Your task to perform on an android device: change alarm snooze length Image 0: 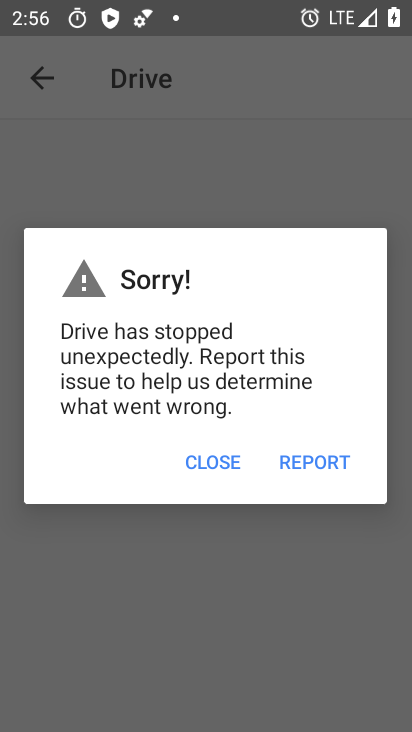
Step 0: press home button
Your task to perform on an android device: change alarm snooze length Image 1: 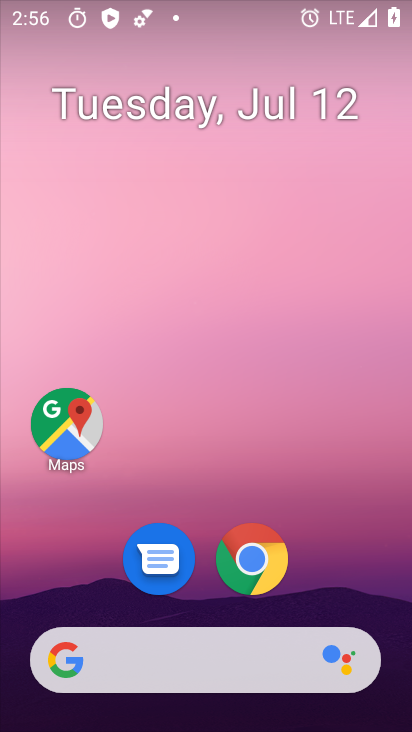
Step 1: drag from (385, 592) to (371, 221)
Your task to perform on an android device: change alarm snooze length Image 2: 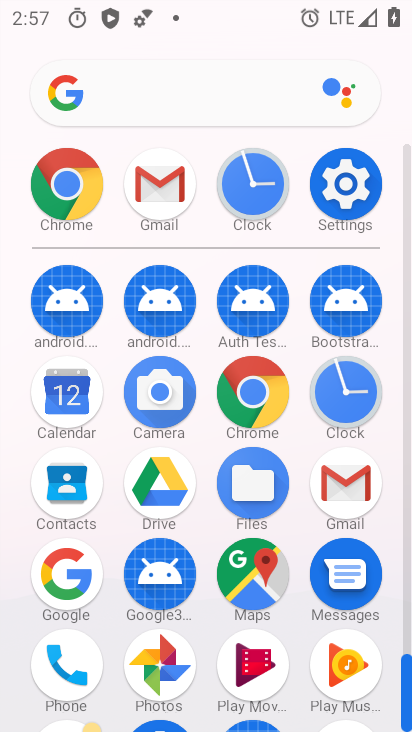
Step 2: click (339, 390)
Your task to perform on an android device: change alarm snooze length Image 3: 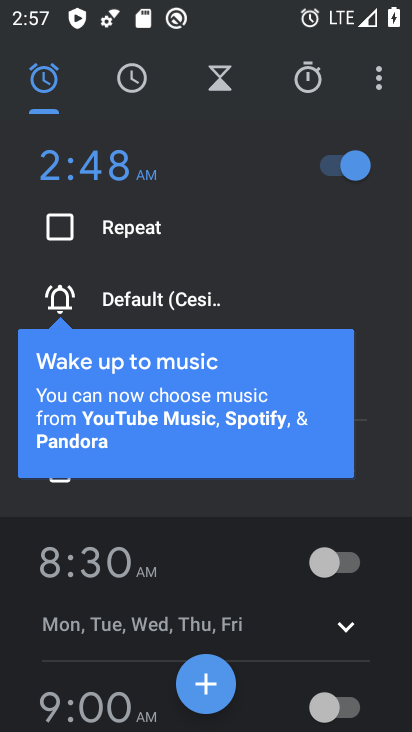
Step 3: click (382, 90)
Your task to perform on an android device: change alarm snooze length Image 4: 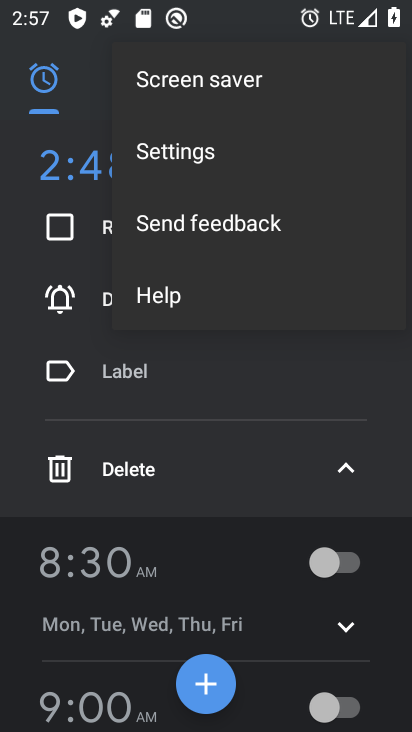
Step 4: click (230, 166)
Your task to perform on an android device: change alarm snooze length Image 5: 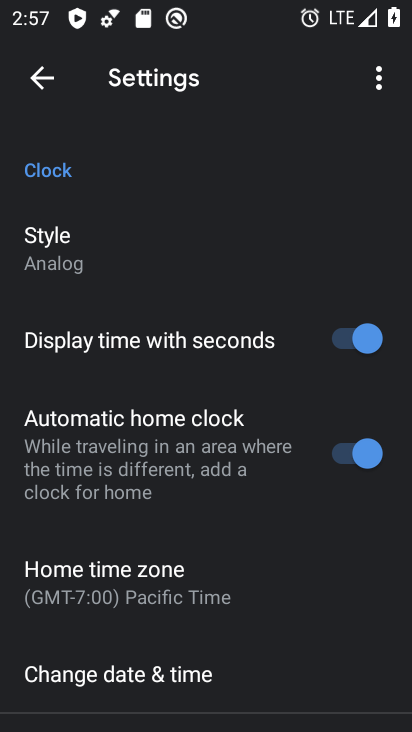
Step 5: drag from (263, 505) to (279, 413)
Your task to perform on an android device: change alarm snooze length Image 6: 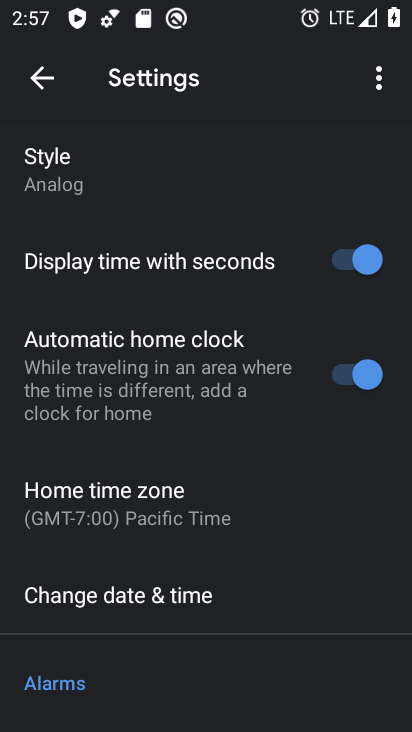
Step 6: drag from (265, 466) to (268, 402)
Your task to perform on an android device: change alarm snooze length Image 7: 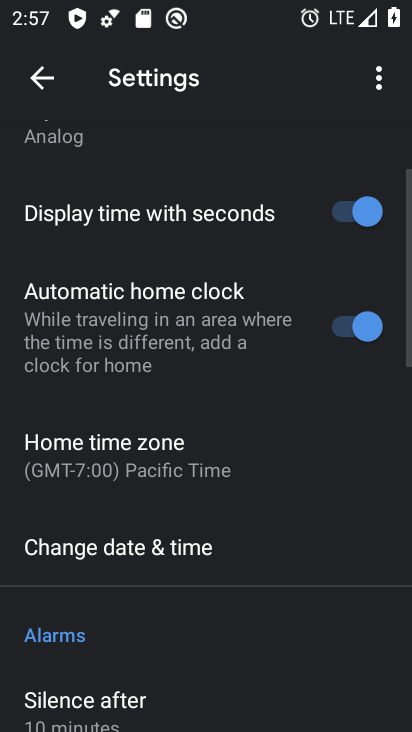
Step 7: drag from (255, 489) to (255, 410)
Your task to perform on an android device: change alarm snooze length Image 8: 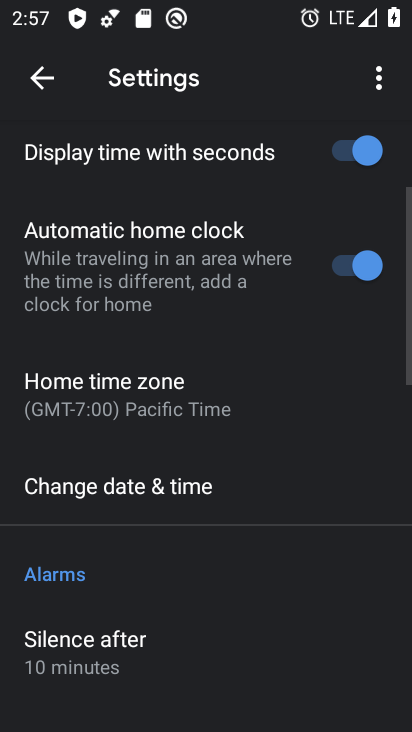
Step 8: drag from (285, 487) to (286, 410)
Your task to perform on an android device: change alarm snooze length Image 9: 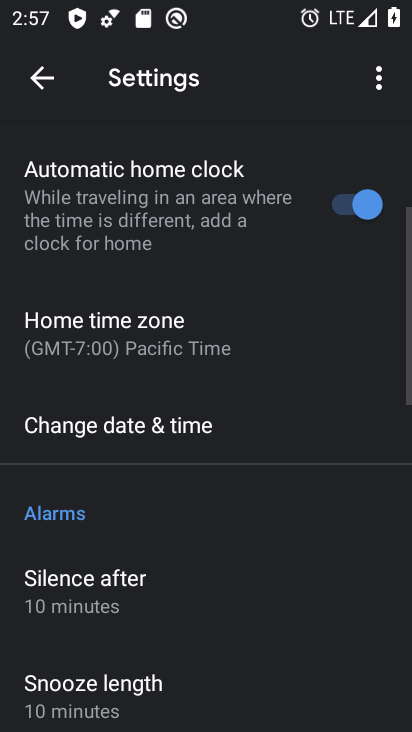
Step 9: drag from (292, 485) to (288, 398)
Your task to perform on an android device: change alarm snooze length Image 10: 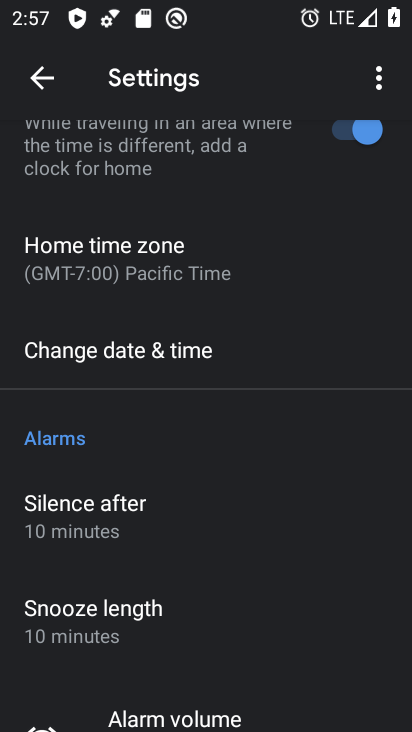
Step 10: drag from (301, 498) to (303, 404)
Your task to perform on an android device: change alarm snooze length Image 11: 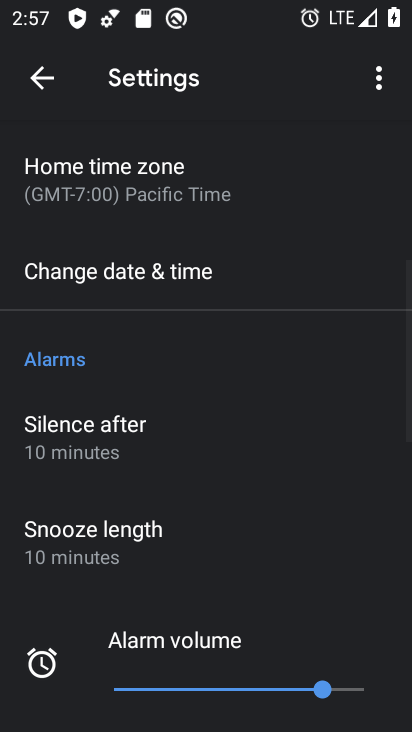
Step 11: drag from (303, 510) to (304, 408)
Your task to perform on an android device: change alarm snooze length Image 12: 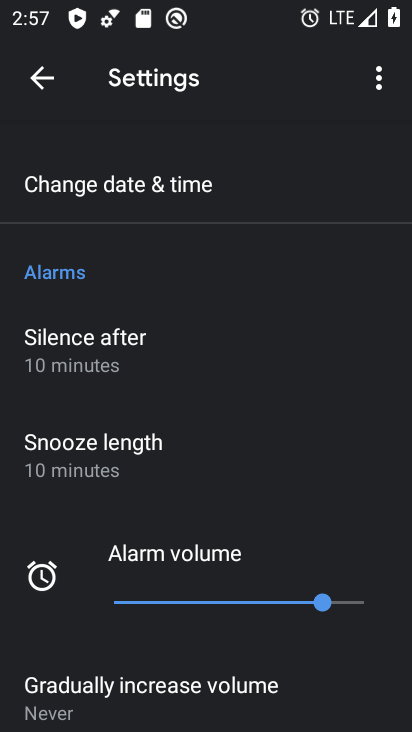
Step 12: drag from (307, 509) to (309, 424)
Your task to perform on an android device: change alarm snooze length Image 13: 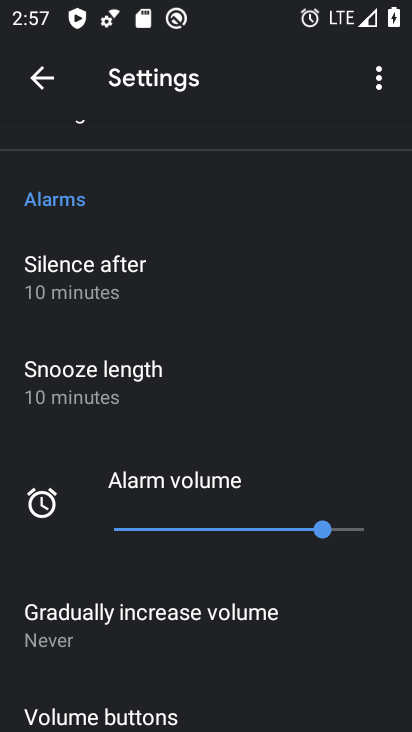
Step 13: click (227, 398)
Your task to perform on an android device: change alarm snooze length Image 14: 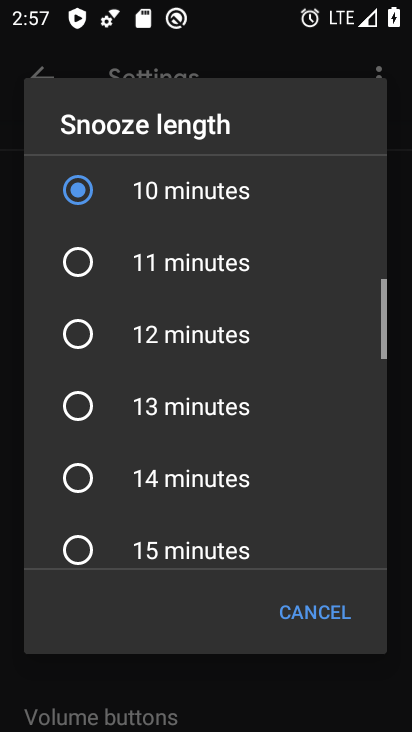
Step 14: click (237, 414)
Your task to perform on an android device: change alarm snooze length Image 15: 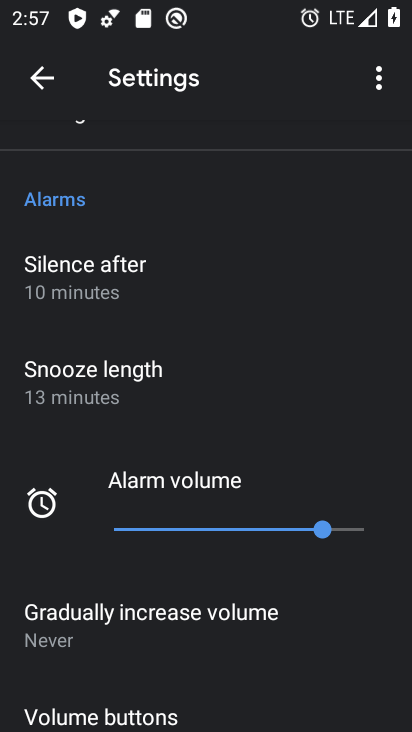
Step 15: task complete